Your task to perform on an android device: refresh tabs in the chrome app Image 0: 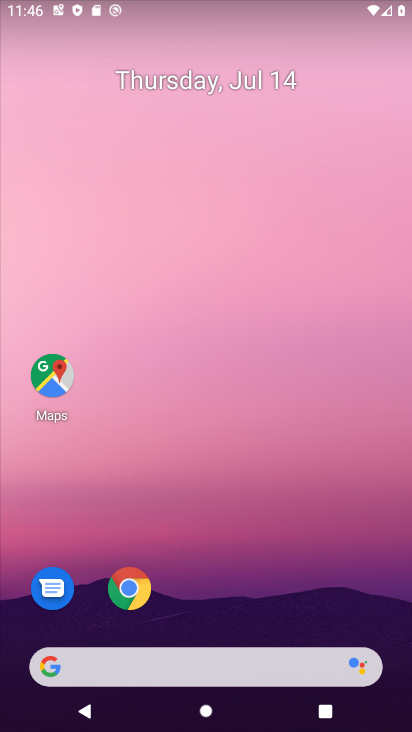
Step 0: click (133, 582)
Your task to perform on an android device: refresh tabs in the chrome app Image 1: 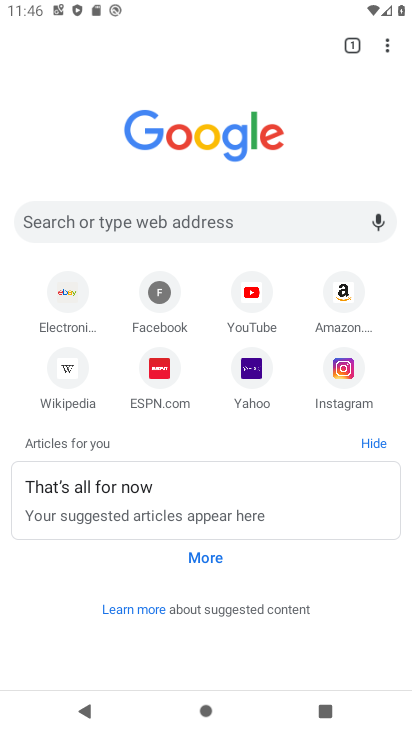
Step 1: click (387, 44)
Your task to perform on an android device: refresh tabs in the chrome app Image 2: 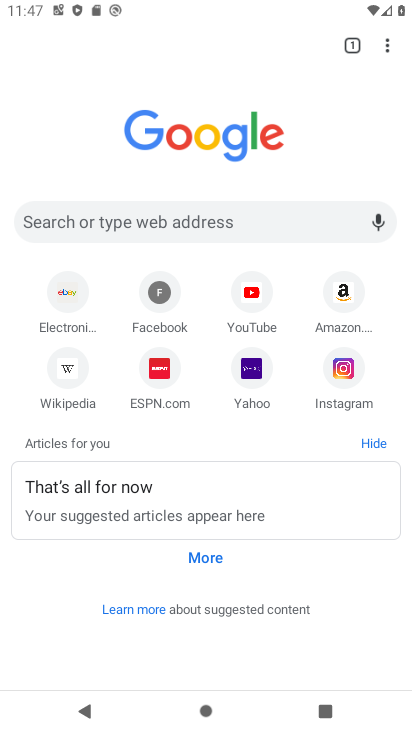
Step 2: task complete